Your task to perform on an android device: What's the weather going to be this weekend? Image 0: 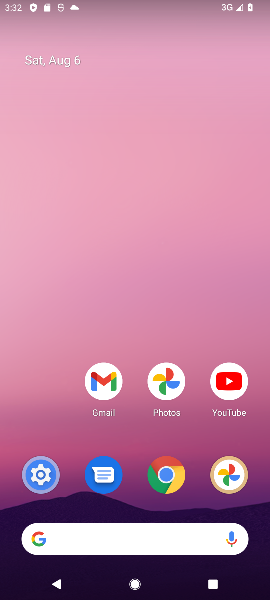
Step 0: click (76, 532)
Your task to perform on an android device: What's the weather going to be this weekend? Image 1: 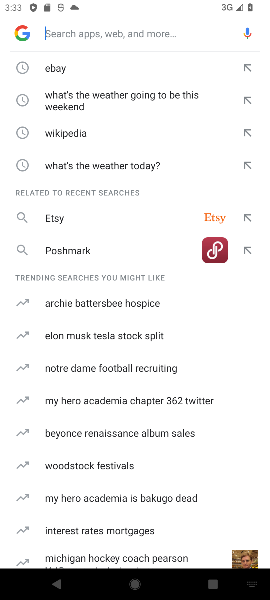
Step 1: click (75, 100)
Your task to perform on an android device: What's the weather going to be this weekend? Image 2: 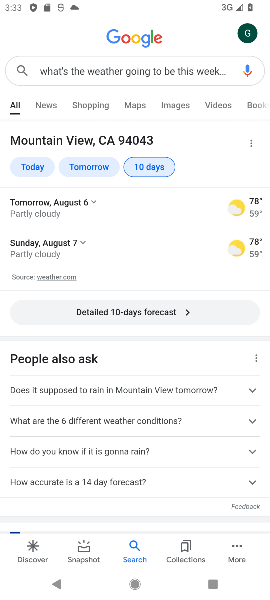
Step 2: task complete